Your task to perform on an android device: Open the phone app and click the voicemail tab. Image 0: 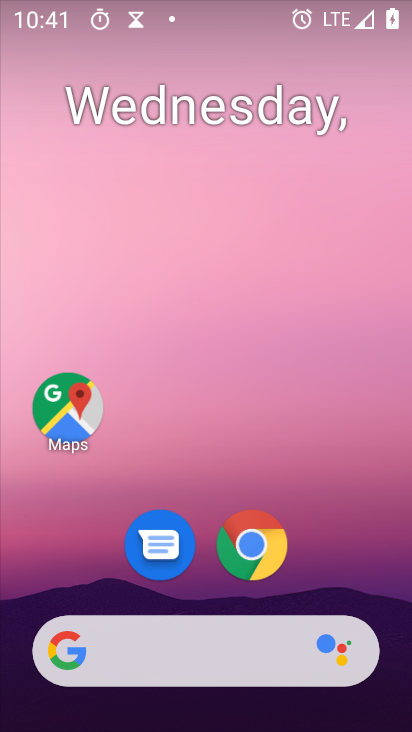
Step 0: press home button
Your task to perform on an android device: Open the phone app and click the voicemail tab. Image 1: 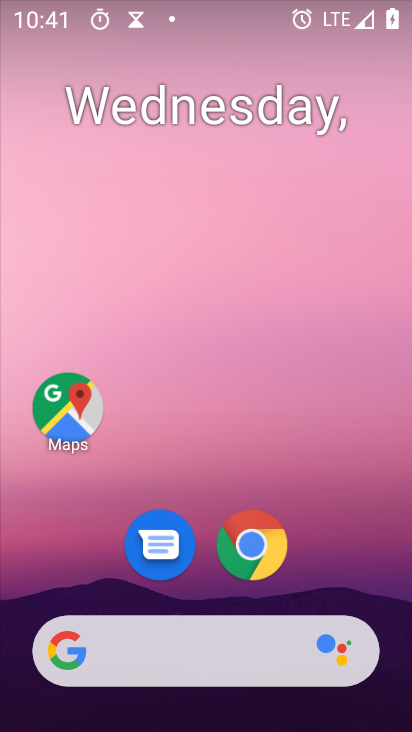
Step 1: drag from (193, 657) to (359, 63)
Your task to perform on an android device: Open the phone app and click the voicemail tab. Image 2: 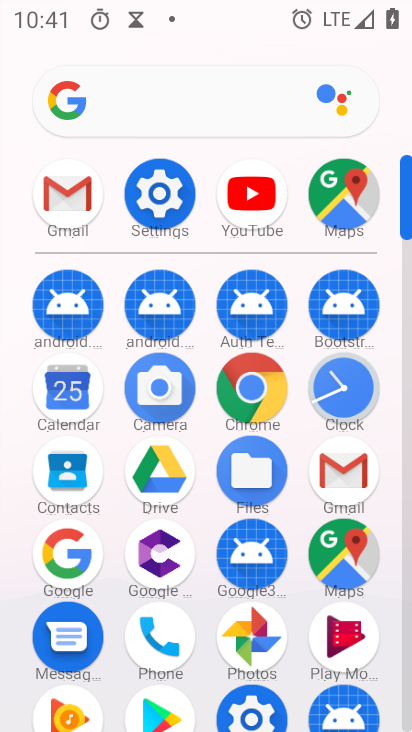
Step 2: click (147, 629)
Your task to perform on an android device: Open the phone app and click the voicemail tab. Image 3: 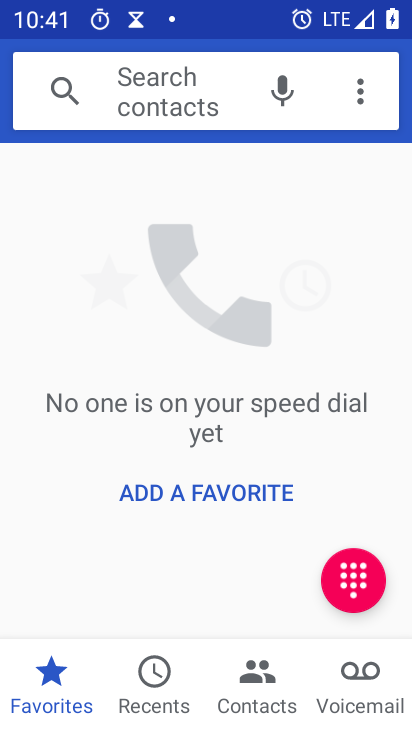
Step 3: click (355, 703)
Your task to perform on an android device: Open the phone app and click the voicemail tab. Image 4: 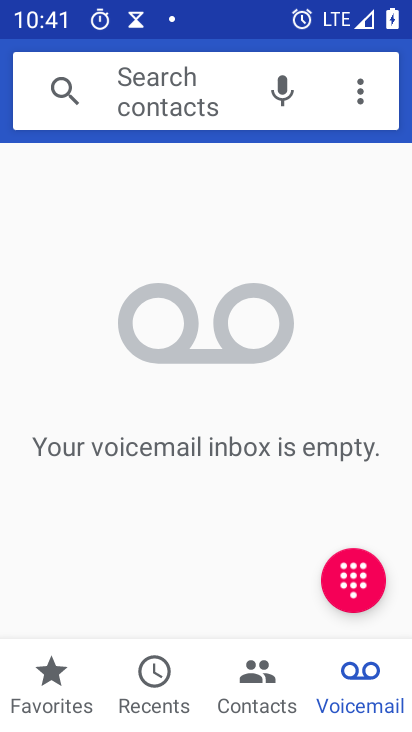
Step 4: task complete